Your task to perform on an android device: open chrome privacy settings Image 0: 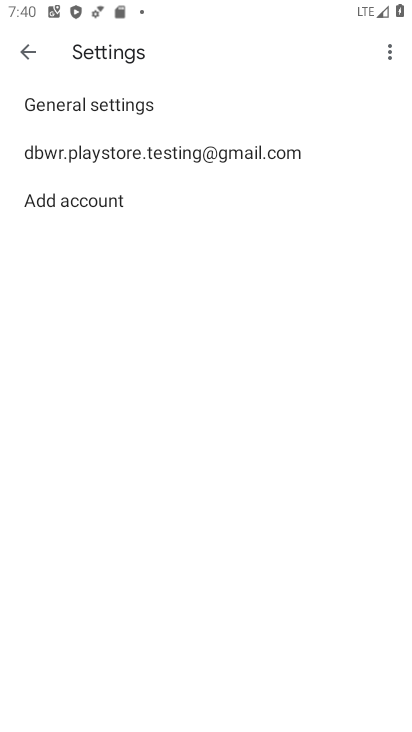
Step 0: press home button
Your task to perform on an android device: open chrome privacy settings Image 1: 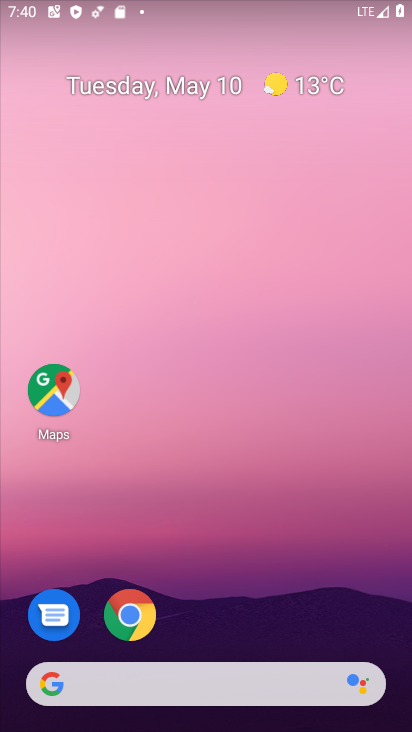
Step 1: drag from (319, 533) to (337, 44)
Your task to perform on an android device: open chrome privacy settings Image 2: 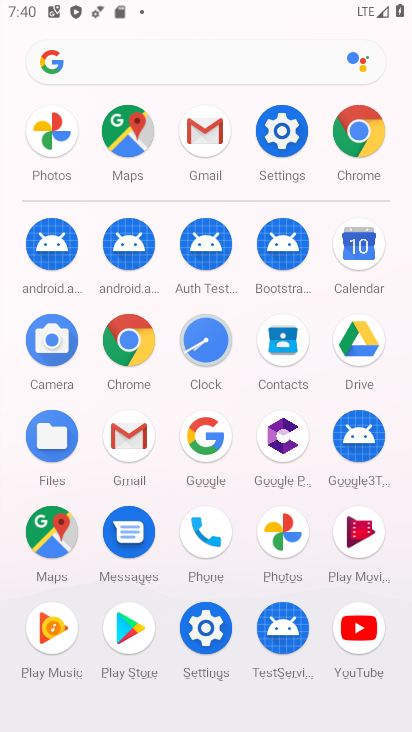
Step 2: click (365, 128)
Your task to perform on an android device: open chrome privacy settings Image 3: 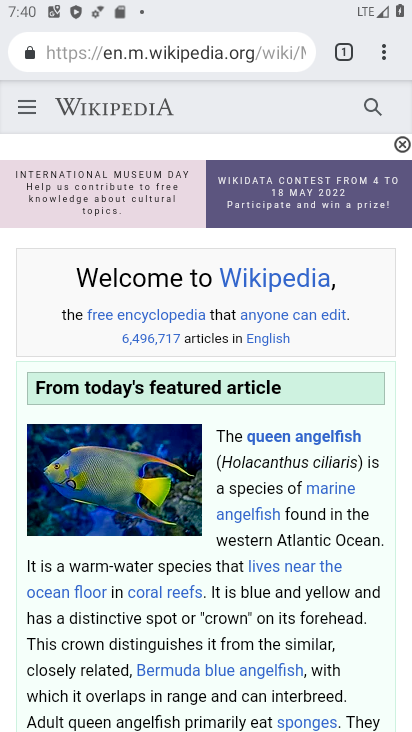
Step 3: drag from (389, 59) to (240, 629)
Your task to perform on an android device: open chrome privacy settings Image 4: 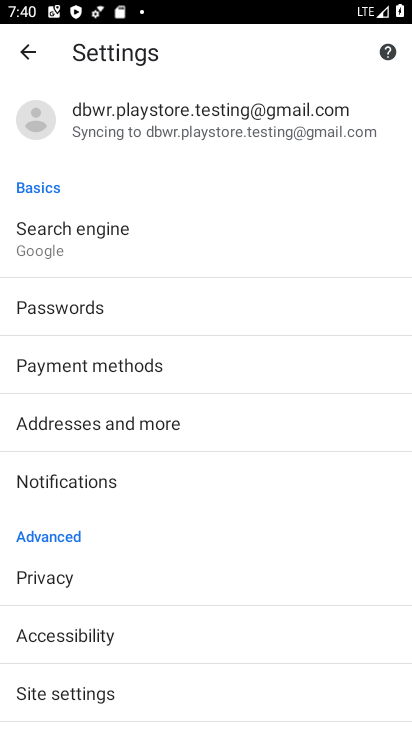
Step 4: click (38, 574)
Your task to perform on an android device: open chrome privacy settings Image 5: 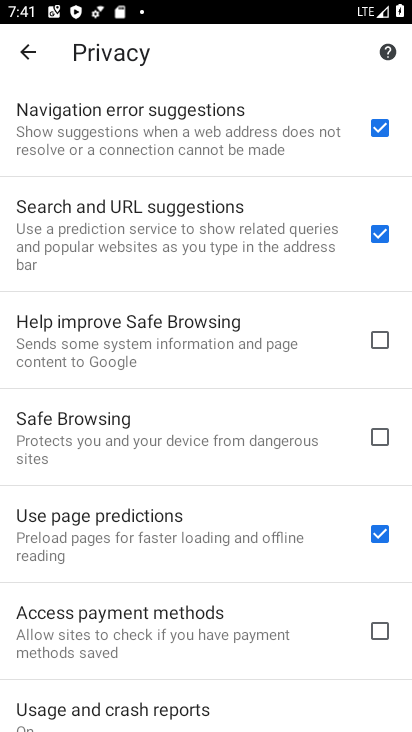
Step 5: task complete